Your task to perform on an android device: see tabs open on other devices in the chrome app Image 0: 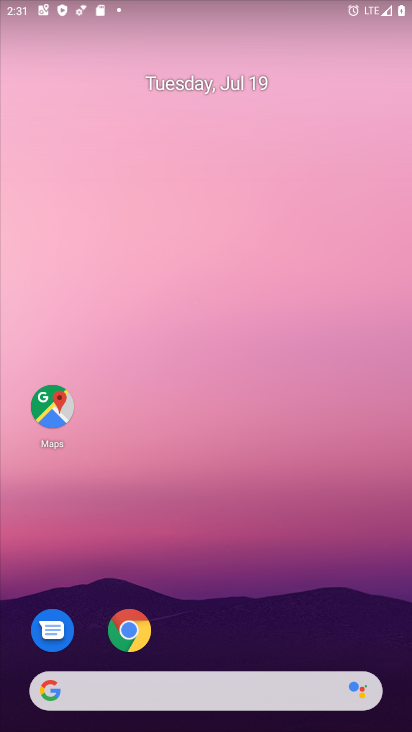
Step 0: click (218, 1)
Your task to perform on an android device: see tabs open on other devices in the chrome app Image 1: 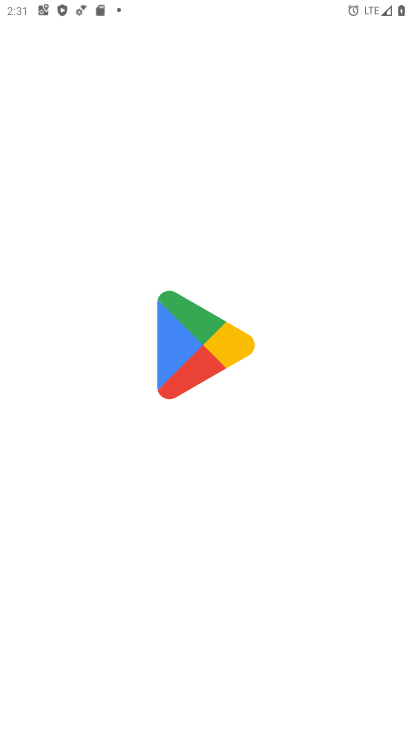
Step 1: press home button
Your task to perform on an android device: see tabs open on other devices in the chrome app Image 2: 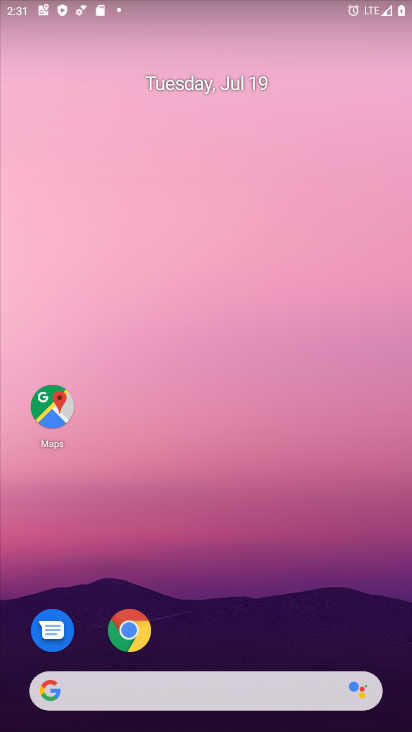
Step 2: click (127, 627)
Your task to perform on an android device: see tabs open on other devices in the chrome app Image 3: 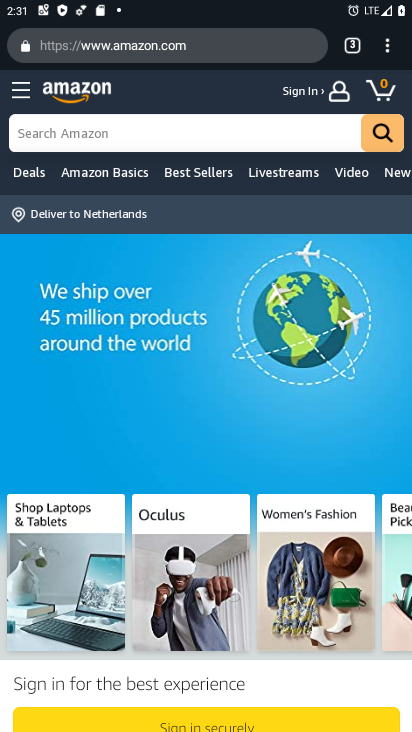
Step 3: click (384, 40)
Your task to perform on an android device: see tabs open on other devices in the chrome app Image 4: 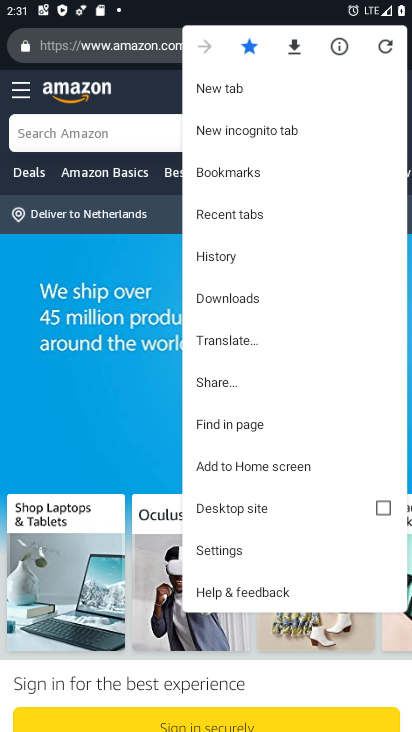
Step 4: click (269, 211)
Your task to perform on an android device: see tabs open on other devices in the chrome app Image 5: 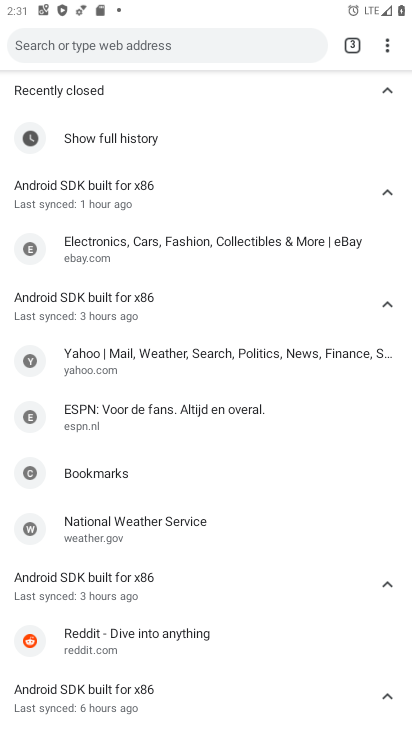
Step 5: task complete